Your task to perform on an android device: search for starred emails in the gmail app Image 0: 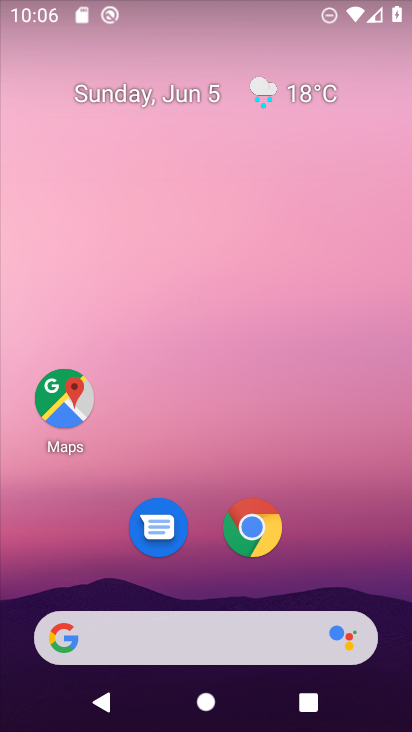
Step 0: drag from (168, 562) to (211, 179)
Your task to perform on an android device: search for starred emails in the gmail app Image 1: 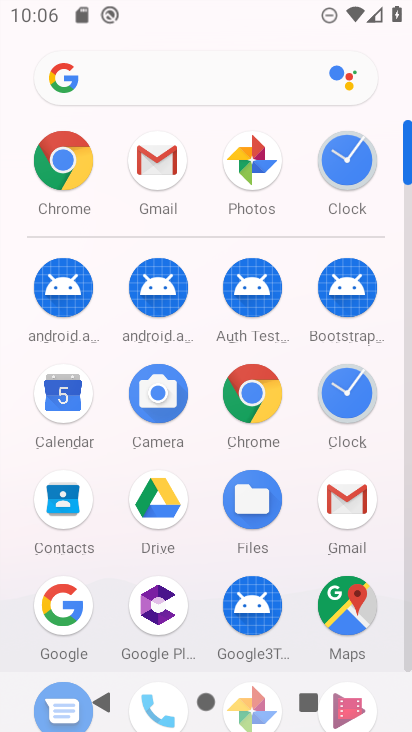
Step 1: click (131, 144)
Your task to perform on an android device: search for starred emails in the gmail app Image 2: 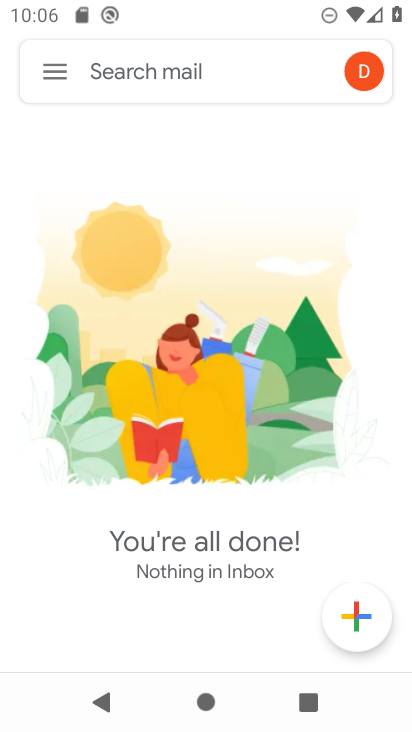
Step 2: click (48, 65)
Your task to perform on an android device: search for starred emails in the gmail app Image 3: 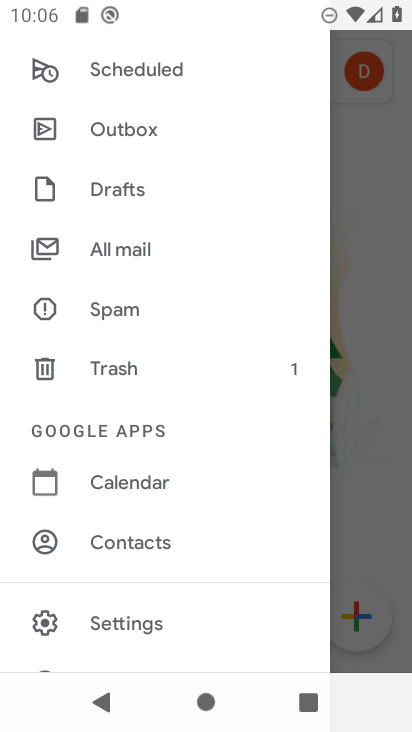
Step 3: drag from (173, 159) to (125, 635)
Your task to perform on an android device: search for starred emails in the gmail app Image 4: 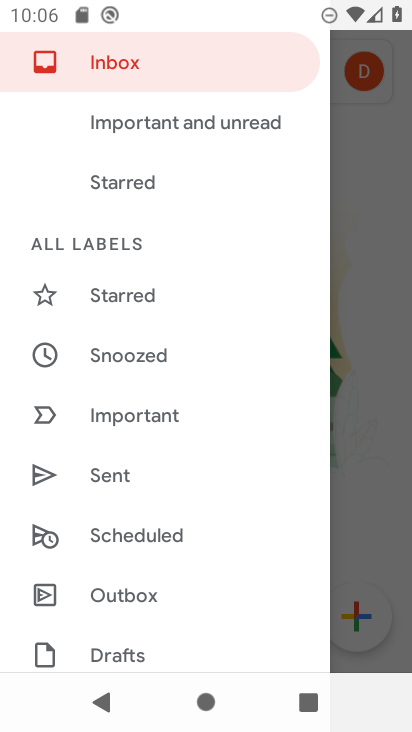
Step 4: click (143, 295)
Your task to perform on an android device: search for starred emails in the gmail app Image 5: 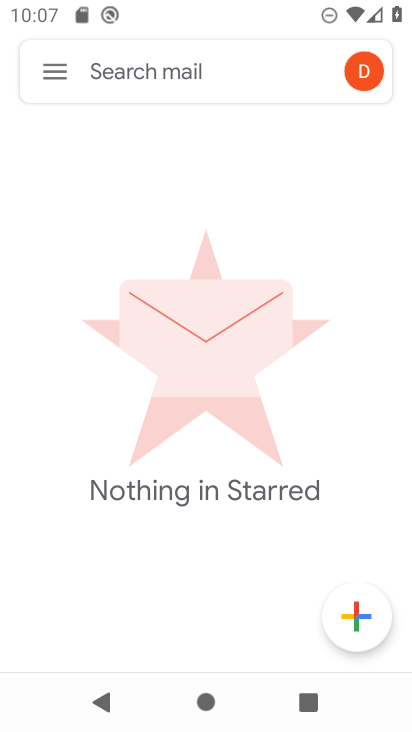
Step 5: task complete